Your task to perform on an android device: turn on priority inbox in the gmail app Image 0: 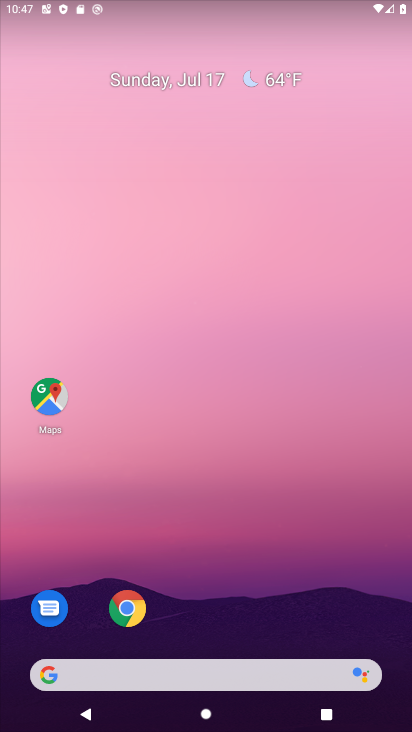
Step 0: drag from (395, 631) to (222, 4)
Your task to perform on an android device: turn on priority inbox in the gmail app Image 1: 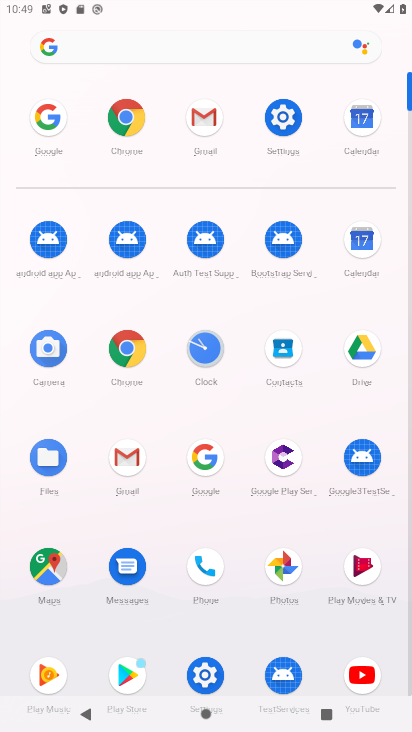
Step 1: click (119, 478)
Your task to perform on an android device: turn on priority inbox in the gmail app Image 2: 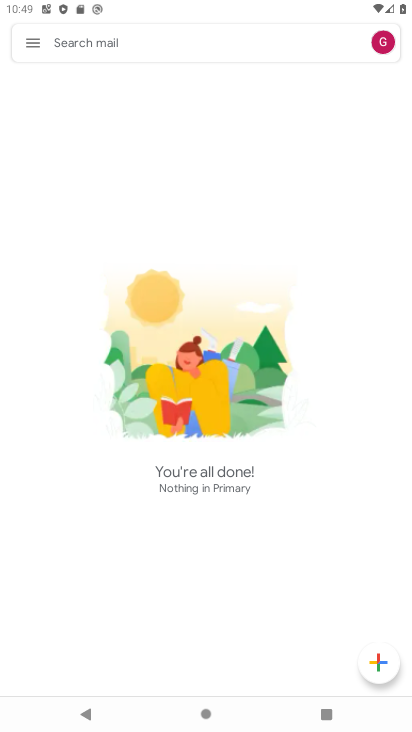
Step 2: click (26, 44)
Your task to perform on an android device: turn on priority inbox in the gmail app Image 3: 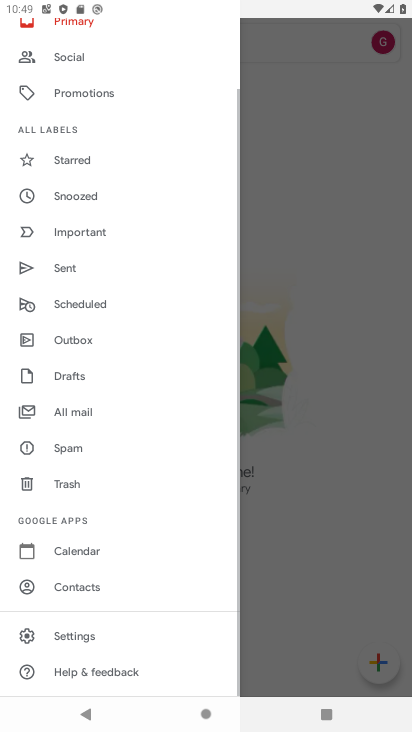
Step 3: click (66, 635)
Your task to perform on an android device: turn on priority inbox in the gmail app Image 4: 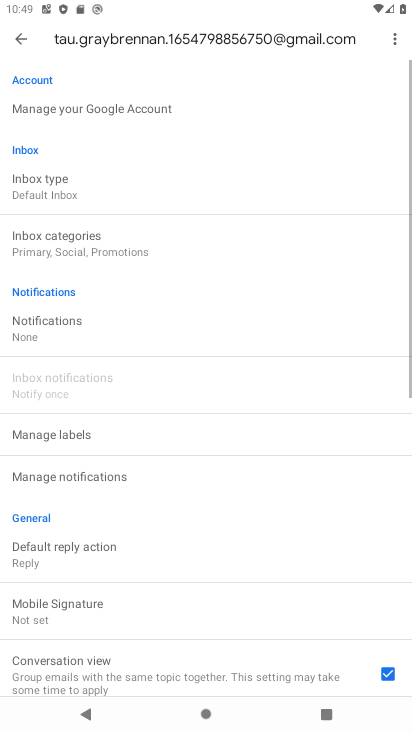
Step 4: click (63, 193)
Your task to perform on an android device: turn on priority inbox in the gmail app Image 5: 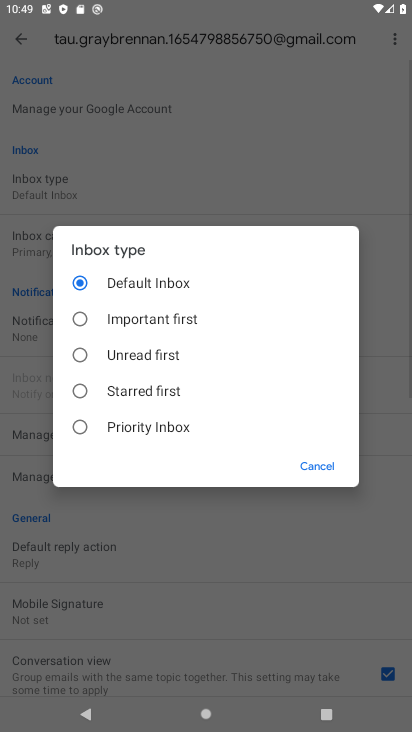
Step 5: click (145, 422)
Your task to perform on an android device: turn on priority inbox in the gmail app Image 6: 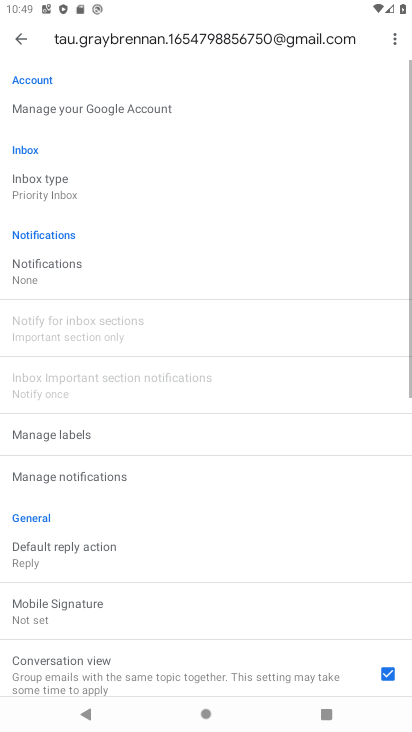
Step 6: task complete